Your task to perform on an android device: Show me recent news Image 0: 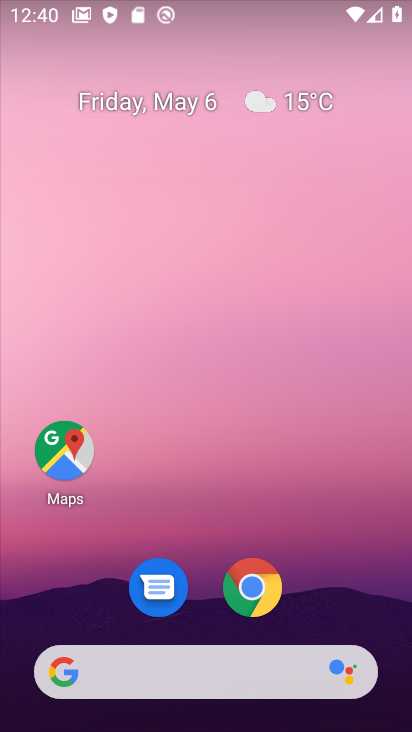
Step 0: drag from (332, 596) to (305, 72)
Your task to perform on an android device: Show me recent news Image 1: 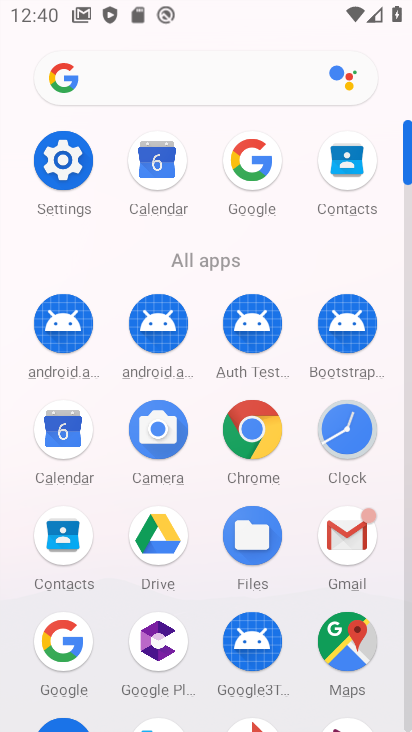
Step 1: click (250, 179)
Your task to perform on an android device: Show me recent news Image 2: 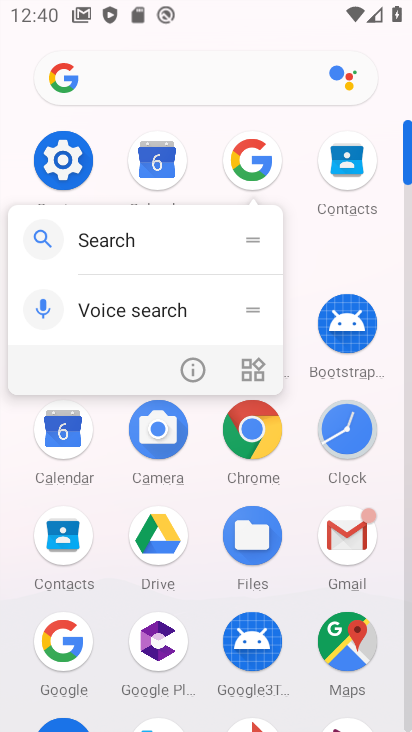
Step 2: click (252, 197)
Your task to perform on an android device: Show me recent news Image 3: 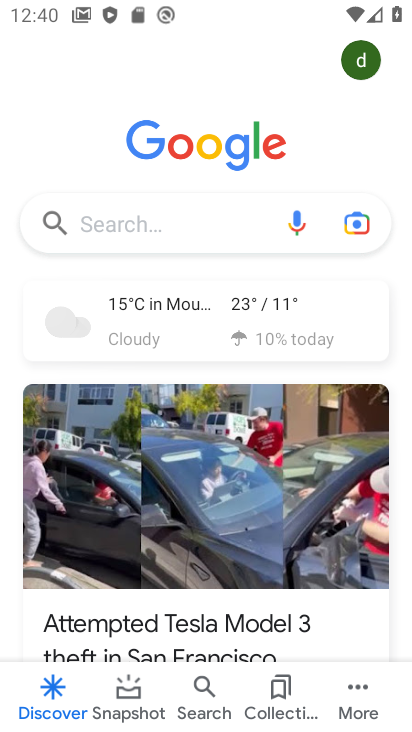
Step 3: task complete